Your task to perform on an android device: Go to Android settings Image 0: 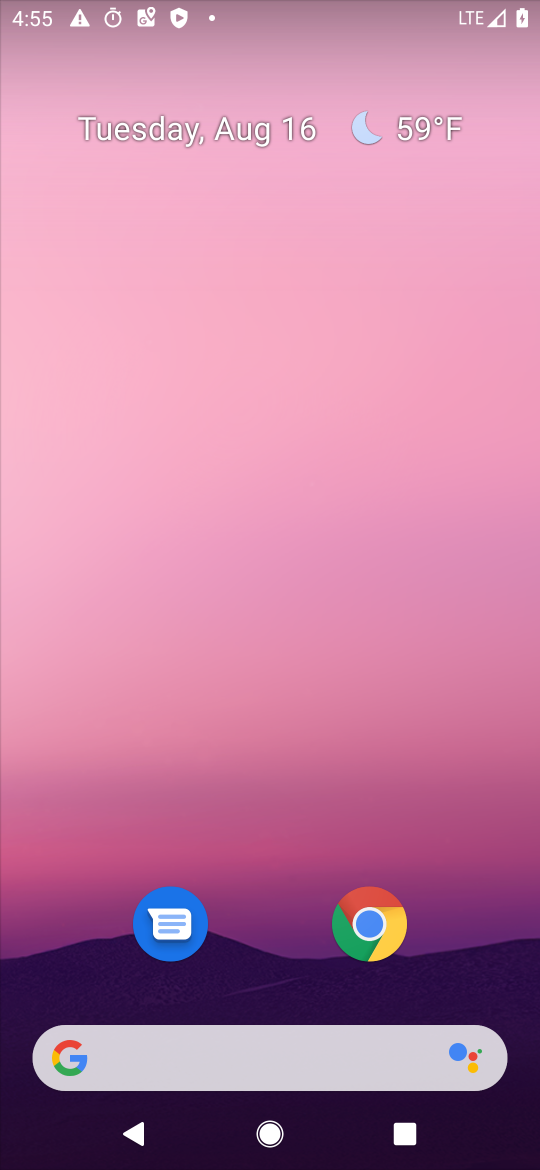
Step 0: drag from (250, 1003) to (348, 106)
Your task to perform on an android device: Go to Android settings Image 1: 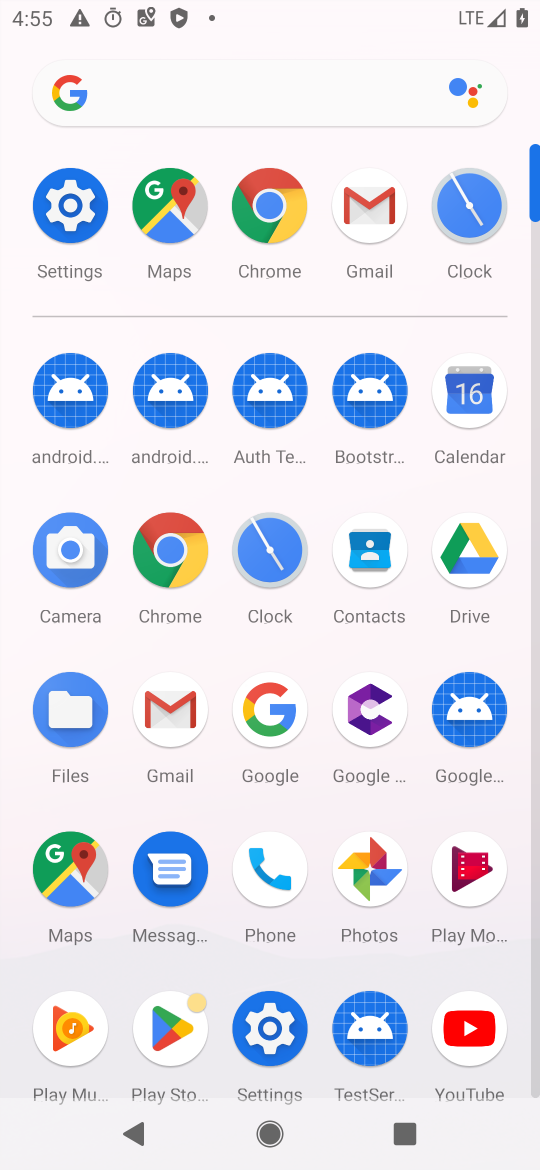
Step 1: click (63, 227)
Your task to perform on an android device: Go to Android settings Image 2: 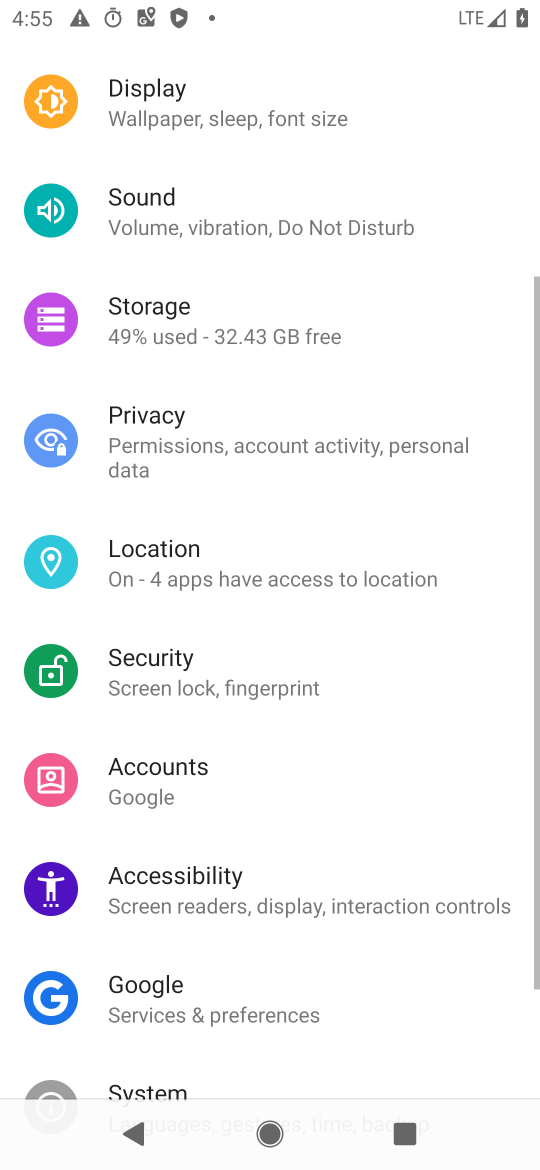
Step 2: task complete